Your task to perform on an android device: read, delete, or share a saved page in the chrome app Image 0: 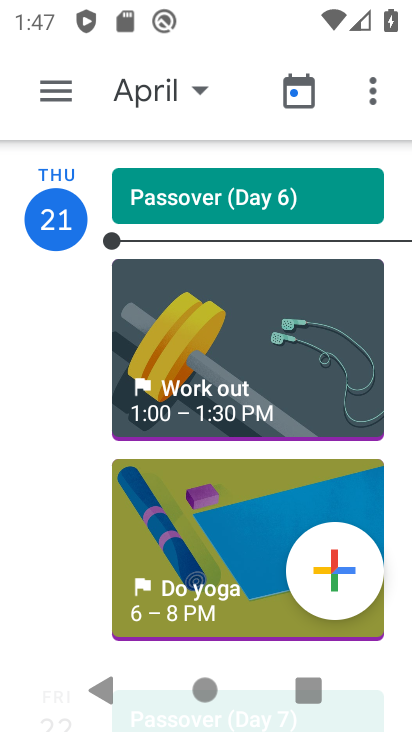
Step 0: press home button
Your task to perform on an android device: read, delete, or share a saved page in the chrome app Image 1: 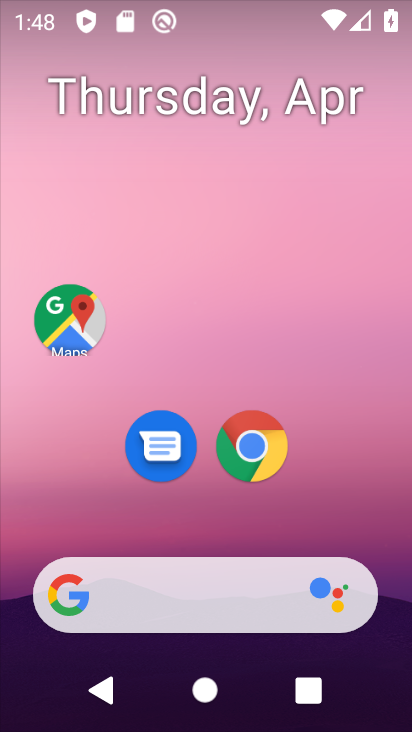
Step 1: click (252, 447)
Your task to perform on an android device: read, delete, or share a saved page in the chrome app Image 2: 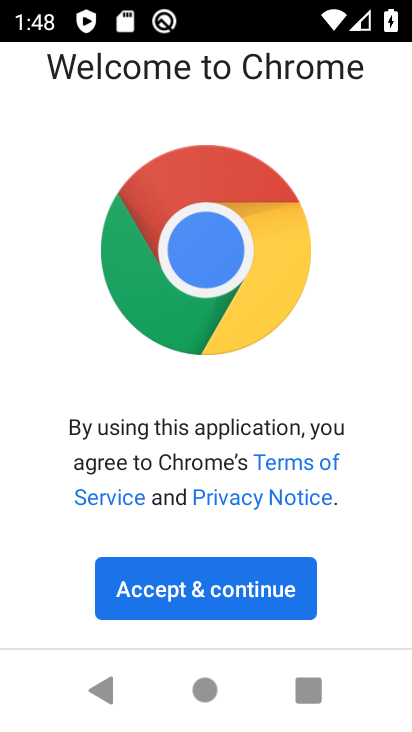
Step 2: click (212, 597)
Your task to perform on an android device: read, delete, or share a saved page in the chrome app Image 3: 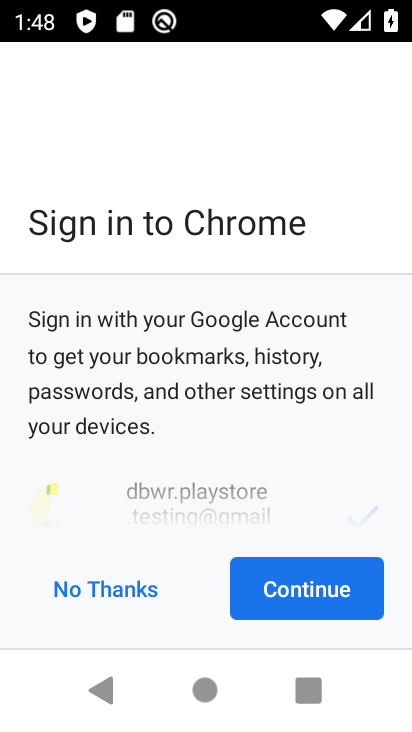
Step 3: click (294, 594)
Your task to perform on an android device: read, delete, or share a saved page in the chrome app Image 4: 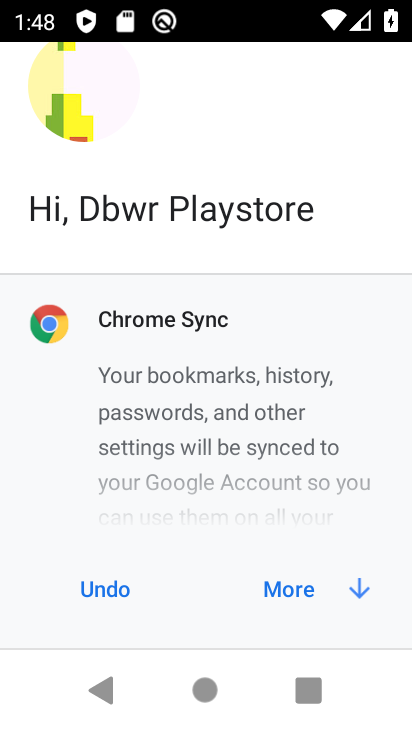
Step 4: click (297, 587)
Your task to perform on an android device: read, delete, or share a saved page in the chrome app Image 5: 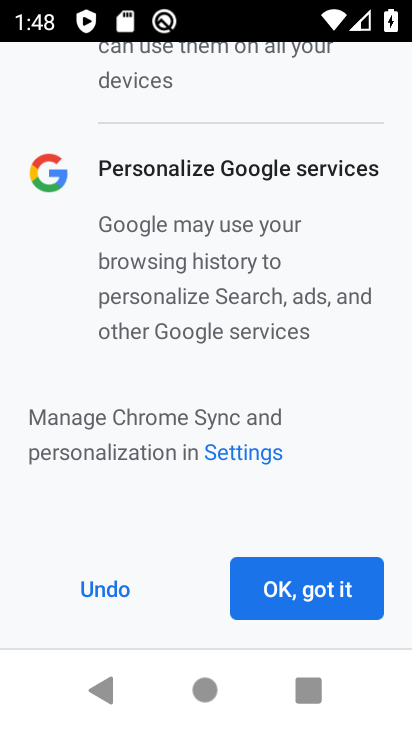
Step 5: click (297, 589)
Your task to perform on an android device: read, delete, or share a saved page in the chrome app Image 6: 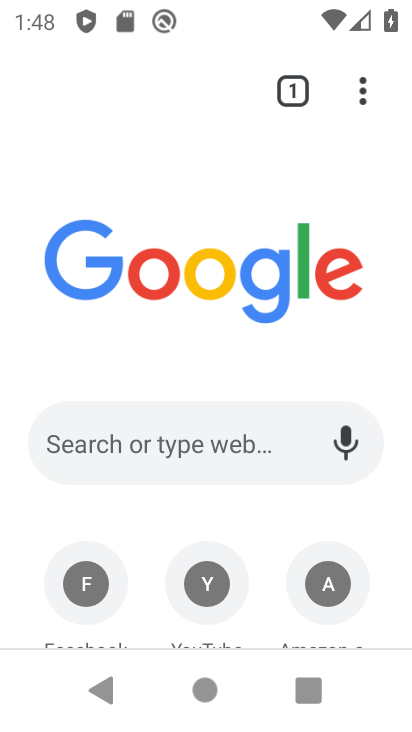
Step 6: task complete